Your task to perform on an android device: turn on translation in the chrome app Image 0: 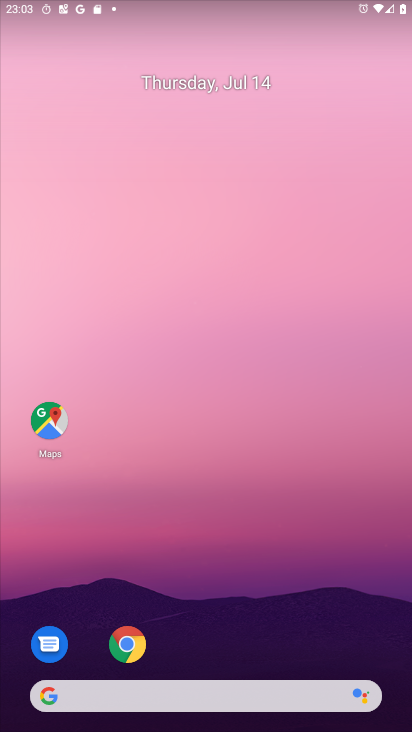
Step 0: click (129, 644)
Your task to perform on an android device: turn on translation in the chrome app Image 1: 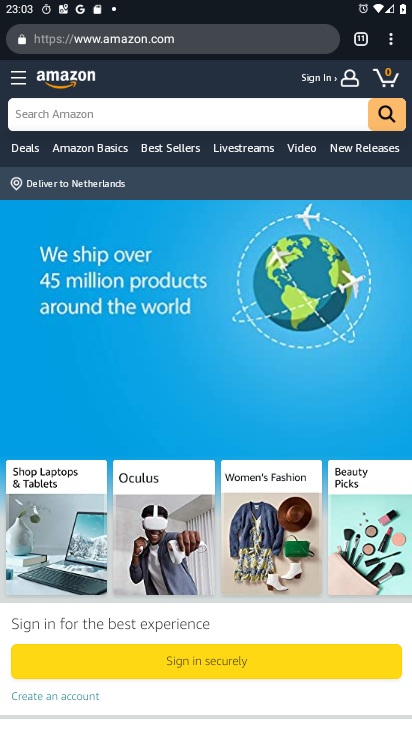
Step 1: click (400, 43)
Your task to perform on an android device: turn on translation in the chrome app Image 2: 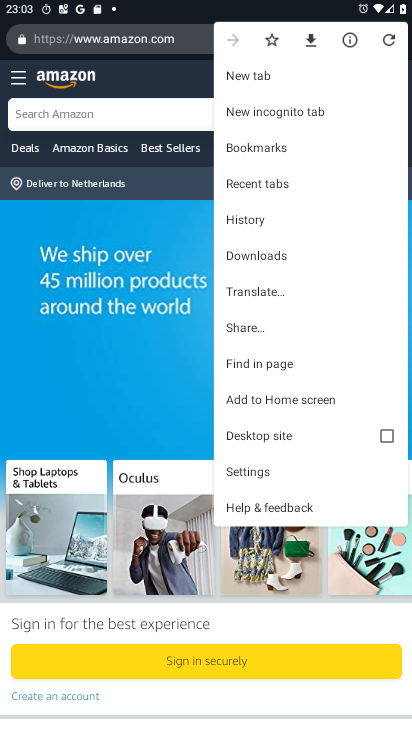
Step 2: click (265, 480)
Your task to perform on an android device: turn on translation in the chrome app Image 3: 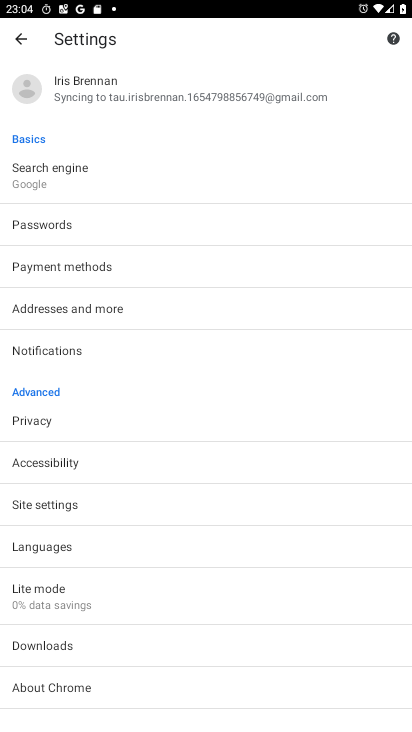
Step 3: click (114, 542)
Your task to perform on an android device: turn on translation in the chrome app Image 4: 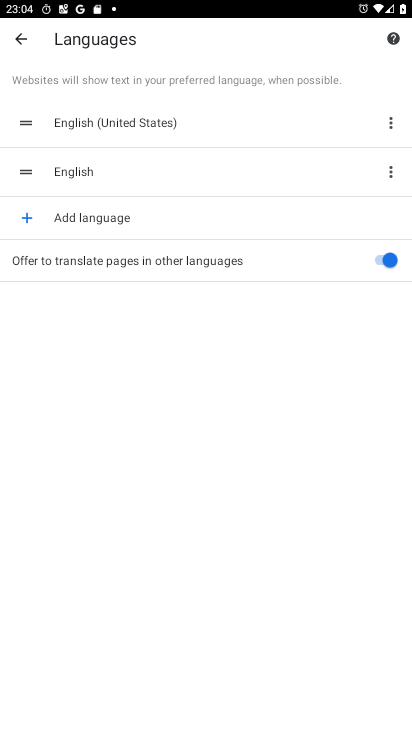
Step 4: task complete